Your task to perform on an android device: Open calendar and show me the second week of next month Image 0: 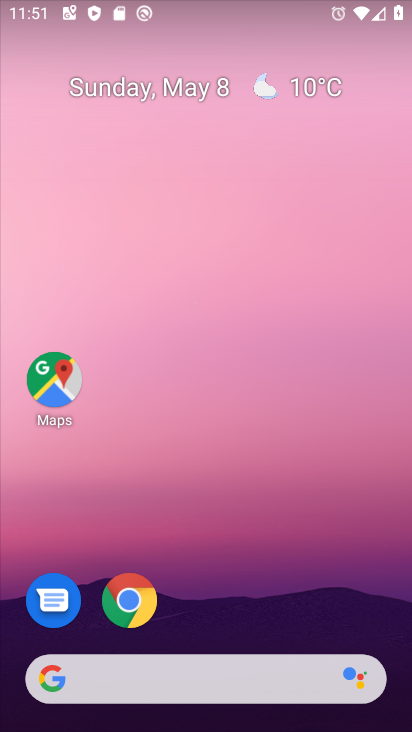
Step 0: drag from (175, 613) to (174, 115)
Your task to perform on an android device: Open calendar and show me the second week of next month Image 1: 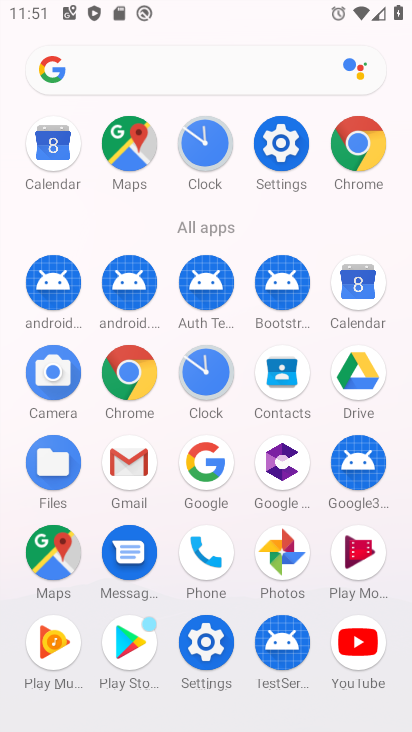
Step 1: click (44, 141)
Your task to perform on an android device: Open calendar and show me the second week of next month Image 2: 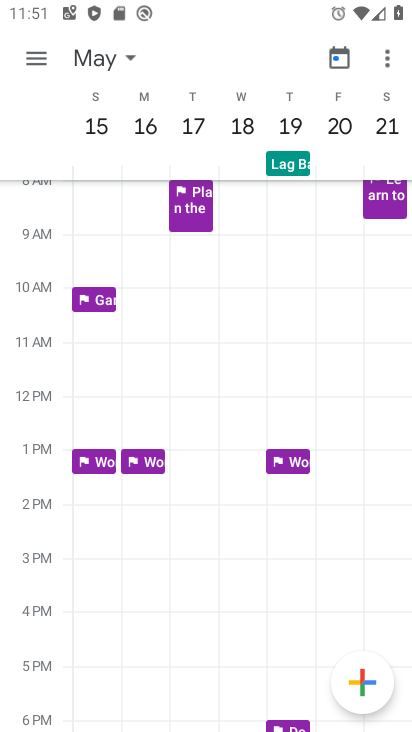
Step 2: click (129, 53)
Your task to perform on an android device: Open calendar and show me the second week of next month Image 3: 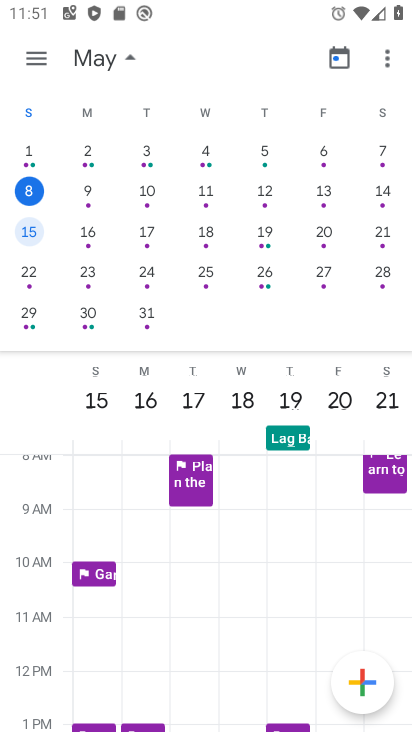
Step 3: drag from (394, 215) to (51, 230)
Your task to perform on an android device: Open calendar and show me the second week of next month Image 4: 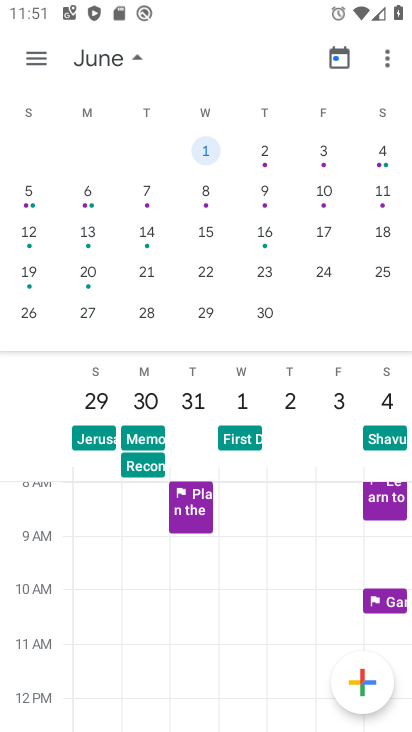
Step 4: click (200, 186)
Your task to perform on an android device: Open calendar and show me the second week of next month Image 5: 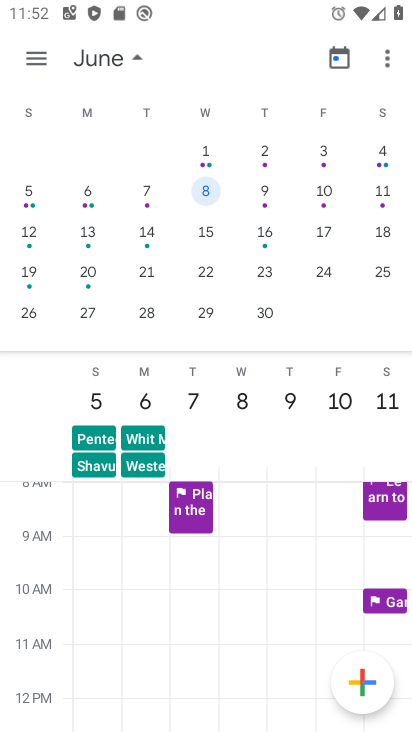
Step 5: click (29, 59)
Your task to perform on an android device: Open calendar and show me the second week of next month Image 6: 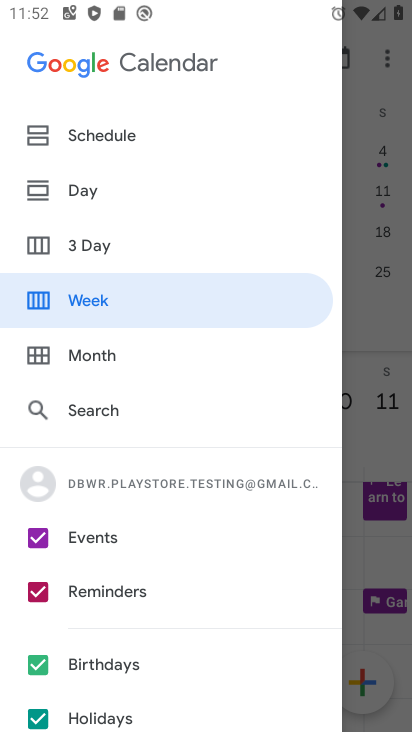
Step 6: click (90, 300)
Your task to perform on an android device: Open calendar and show me the second week of next month Image 7: 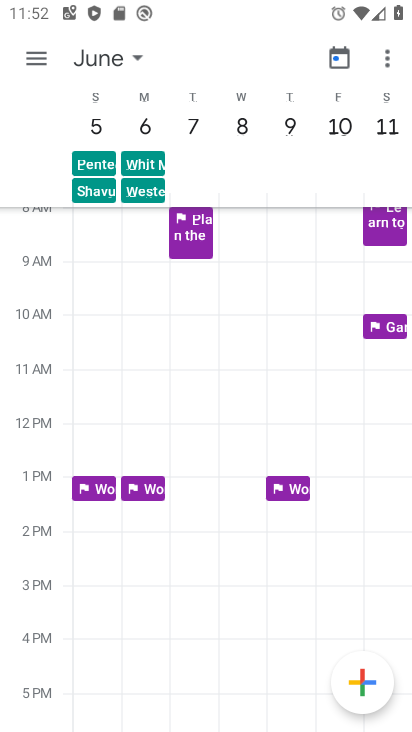
Step 7: task complete